Your task to perform on an android device: turn on notifications settings in the gmail app Image 0: 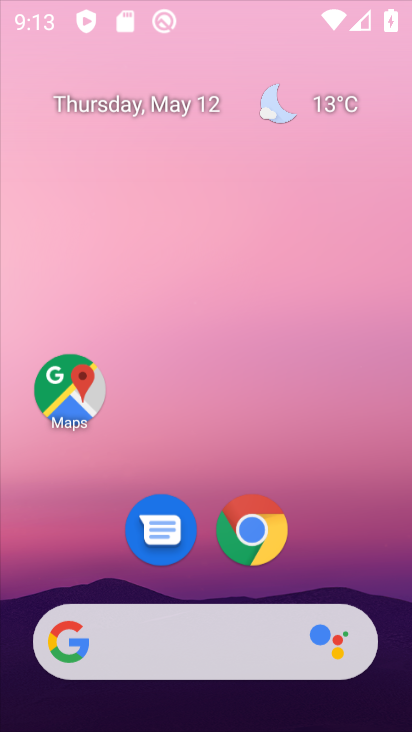
Step 0: click (366, 169)
Your task to perform on an android device: turn on notifications settings in the gmail app Image 1: 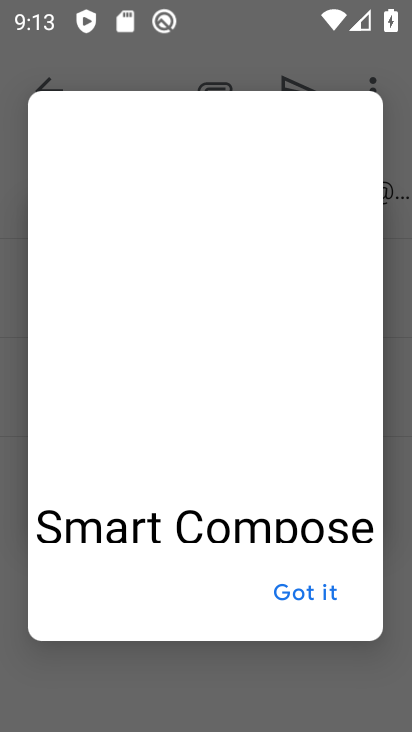
Step 1: press home button
Your task to perform on an android device: turn on notifications settings in the gmail app Image 2: 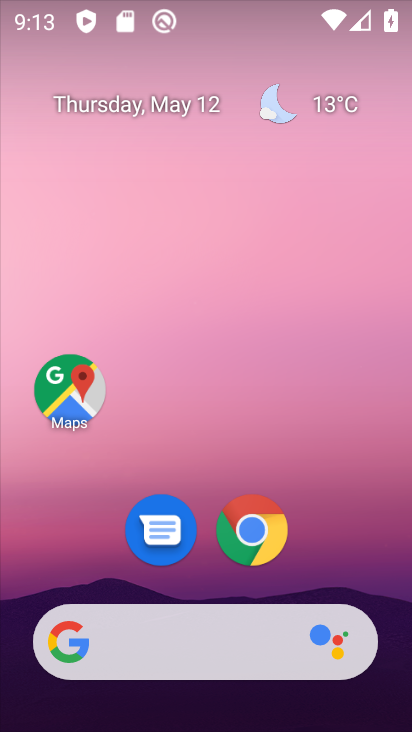
Step 2: drag from (337, 544) to (411, 124)
Your task to perform on an android device: turn on notifications settings in the gmail app Image 3: 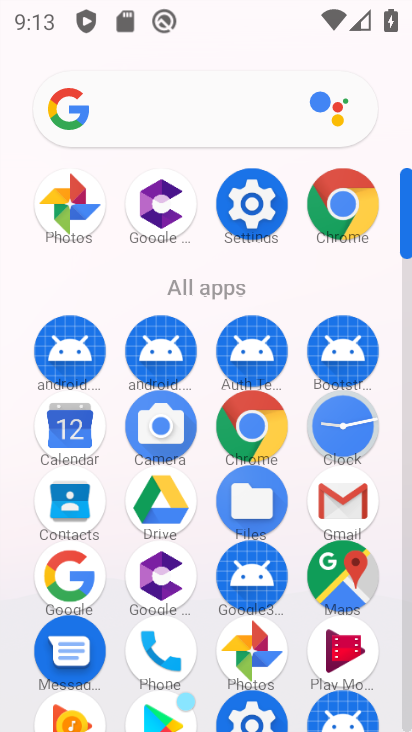
Step 3: click (272, 199)
Your task to perform on an android device: turn on notifications settings in the gmail app Image 4: 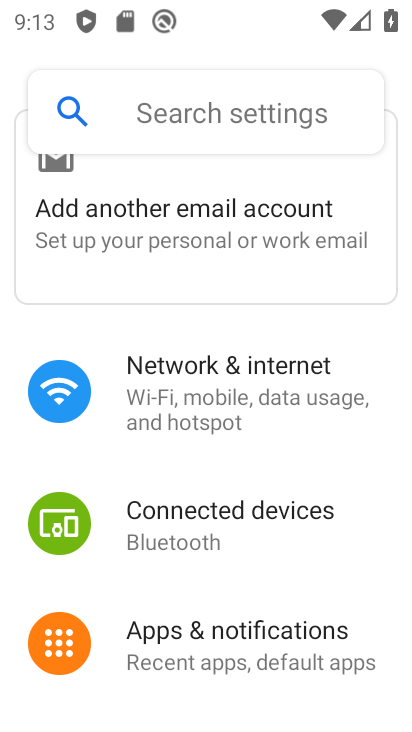
Step 4: press home button
Your task to perform on an android device: turn on notifications settings in the gmail app Image 5: 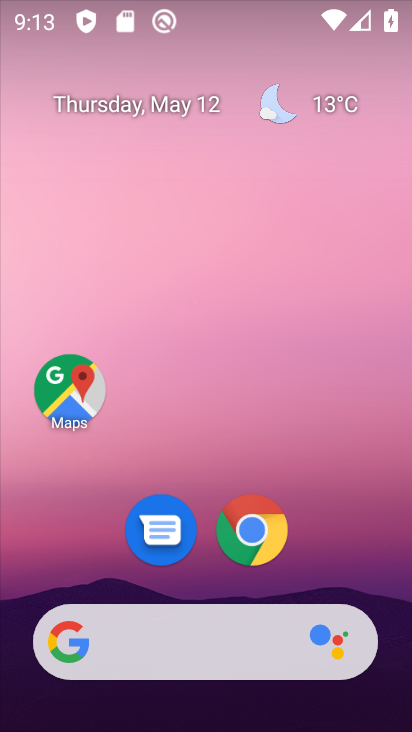
Step 5: drag from (326, 472) to (360, 72)
Your task to perform on an android device: turn on notifications settings in the gmail app Image 6: 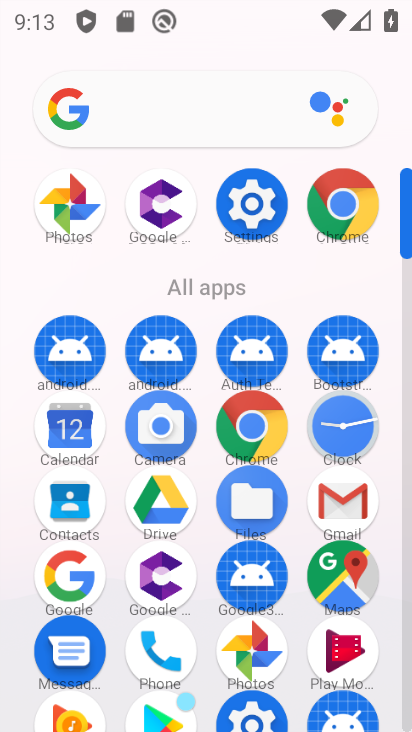
Step 6: click (349, 512)
Your task to perform on an android device: turn on notifications settings in the gmail app Image 7: 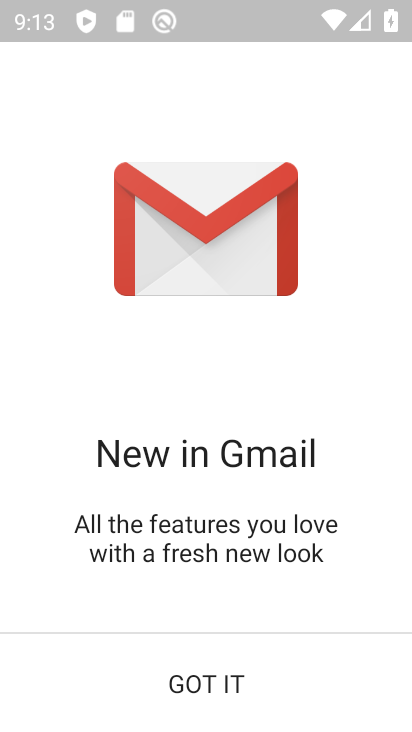
Step 7: click (252, 680)
Your task to perform on an android device: turn on notifications settings in the gmail app Image 8: 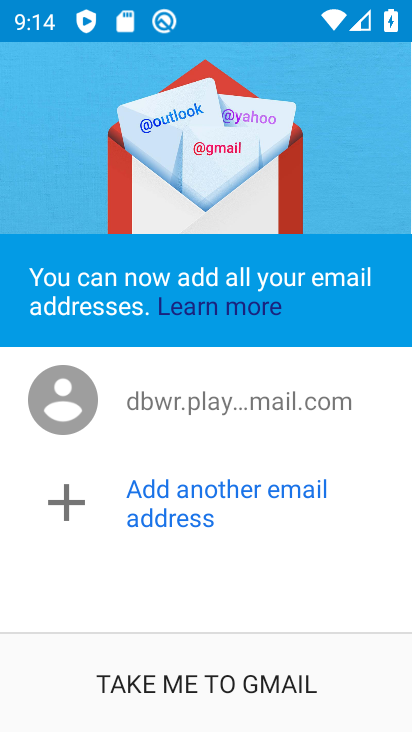
Step 8: drag from (327, 542) to (245, 44)
Your task to perform on an android device: turn on notifications settings in the gmail app Image 9: 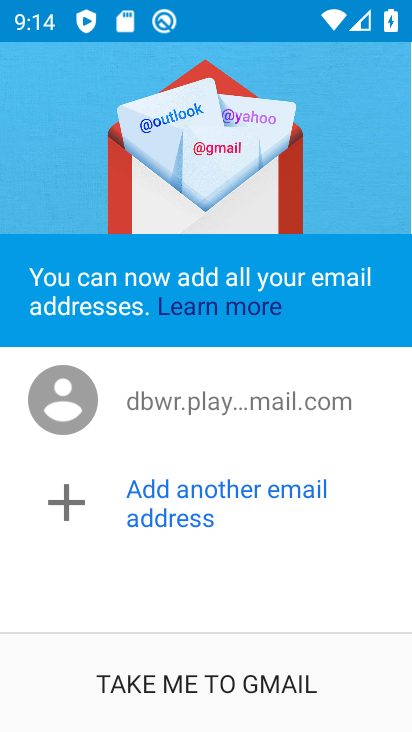
Step 9: click (279, 684)
Your task to perform on an android device: turn on notifications settings in the gmail app Image 10: 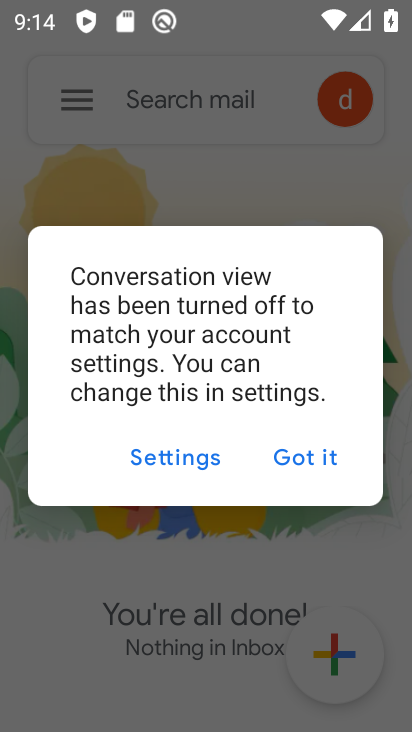
Step 10: click (297, 458)
Your task to perform on an android device: turn on notifications settings in the gmail app Image 11: 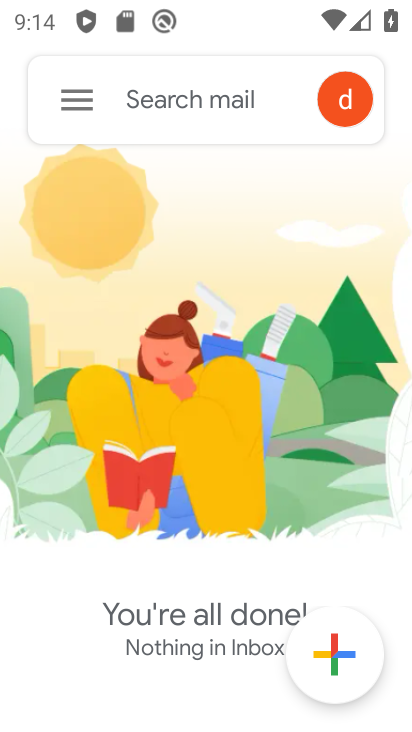
Step 11: click (64, 81)
Your task to perform on an android device: turn on notifications settings in the gmail app Image 12: 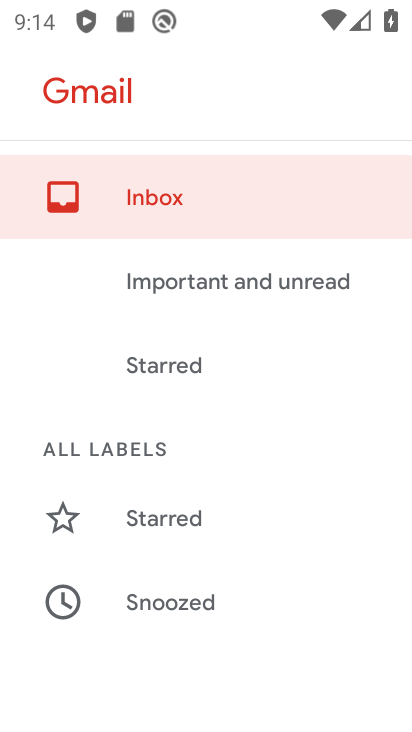
Step 12: drag from (339, 594) to (332, 376)
Your task to perform on an android device: turn on notifications settings in the gmail app Image 13: 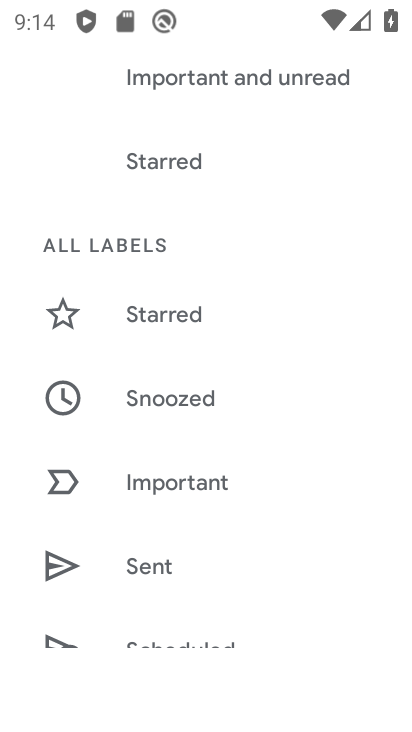
Step 13: drag from (322, 557) to (324, 120)
Your task to perform on an android device: turn on notifications settings in the gmail app Image 14: 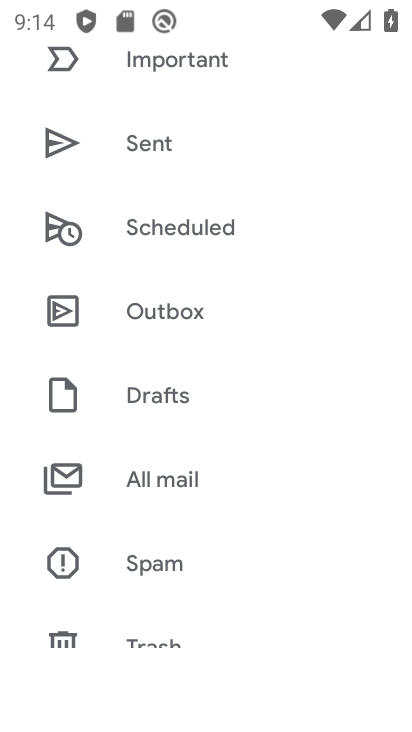
Step 14: drag from (231, 600) to (331, 140)
Your task to perform on an android device: turn on notifications settings in the gmail app Image 15: 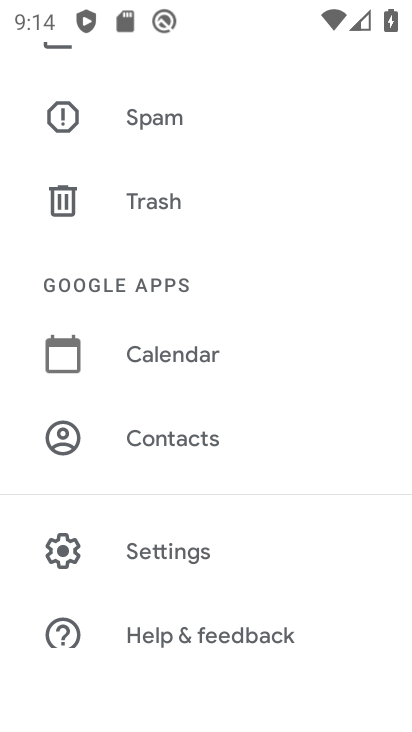
Step 15: click (212, 558)
Your task to perform on an android device: turn on notifications settings in the gmail app Image 16: 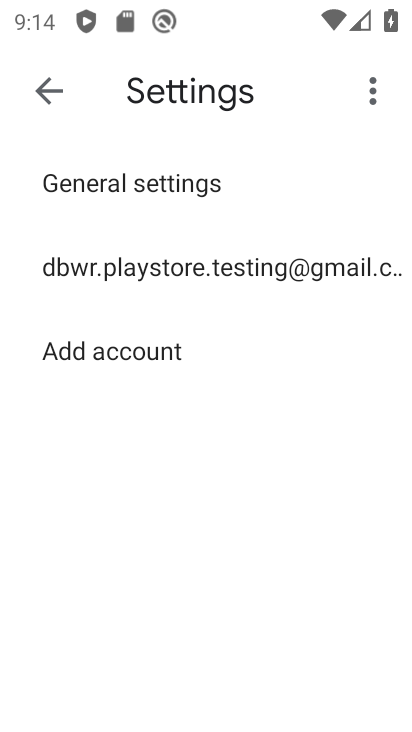
Step 16: click (50, 79)
Your task to perform on an android device: turn on notifications settings in the gmail app Image 17: 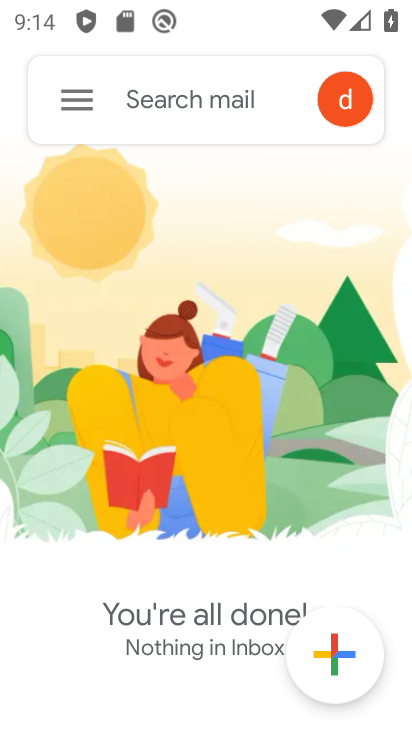
Step 17: click (59, 82)
Your task to perform on an android device: turn on notifications settings in the gmail app Image 18: 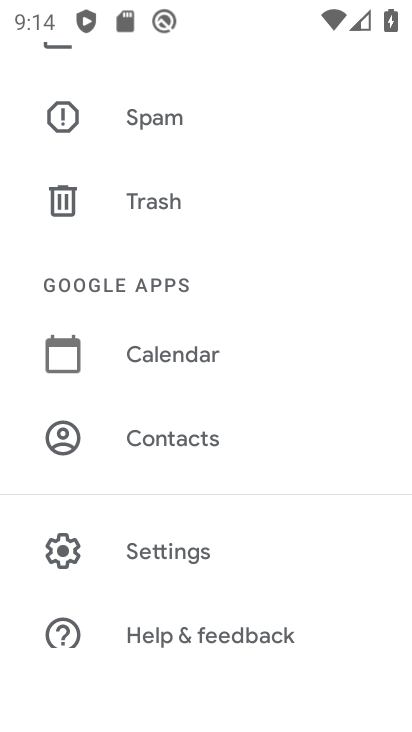
Step 18: task complete